Your task to perform on an android device: Open calendar and show me the fourth week of next month Image 0: 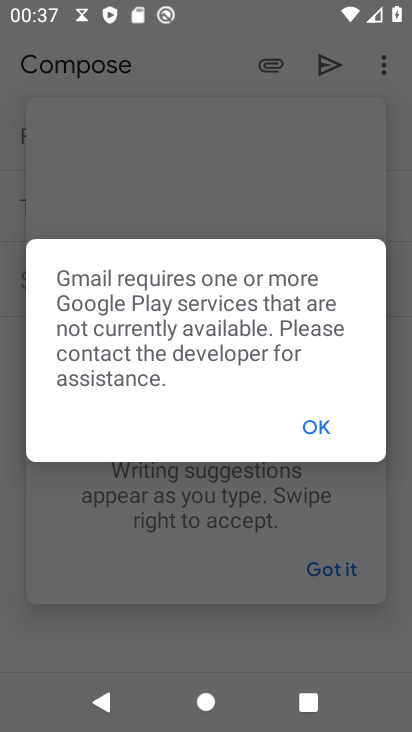
Step 0: press home button
Your task to perform on an android device: Open calendar and show me the fourth week of next month Image 1: 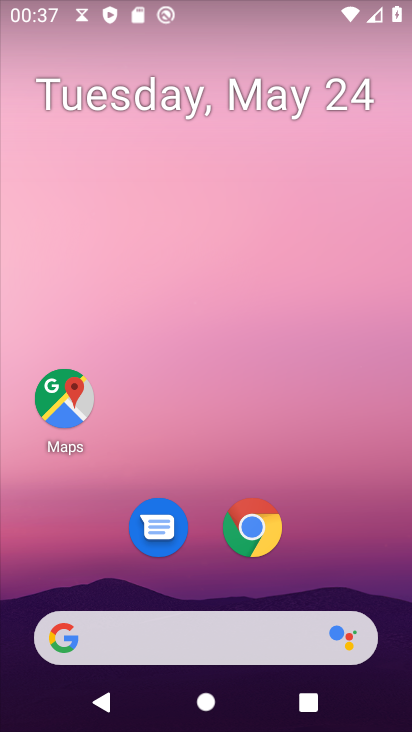
Step 1: drag from (155, 638) to (308, 264)
Your task to perform on an android device: Open calendar and show me the fourth week of next month Image 2: 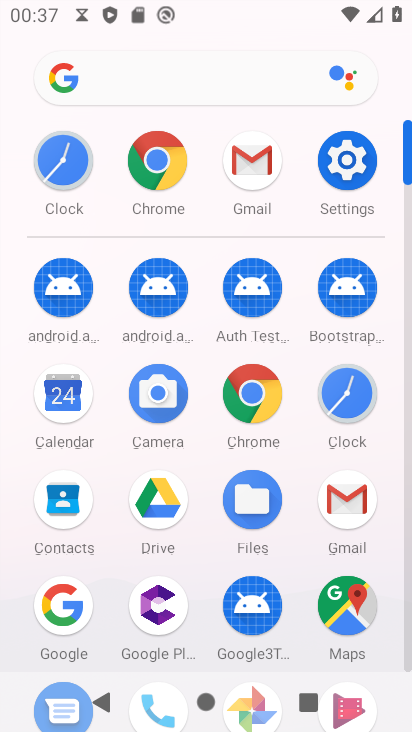
Step 2: click (66, 402)
Your task to perform on an android device: Open calendar and show me the fourth week of next month Image 3: 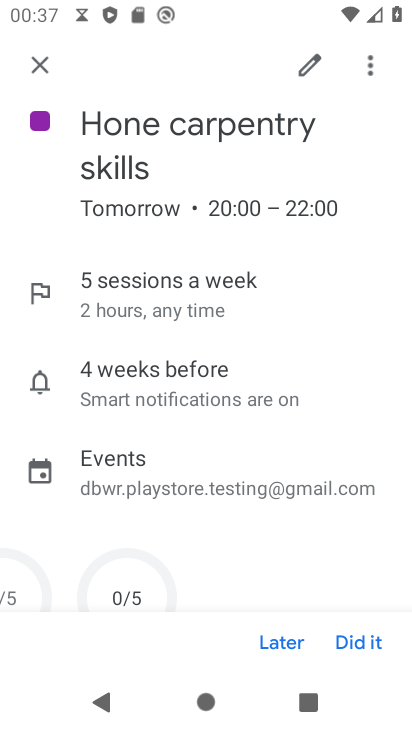
Step 3: click (36, 66)
Your task to perform on an android device: Open calendar and show me the fourth week of next month Image 4: 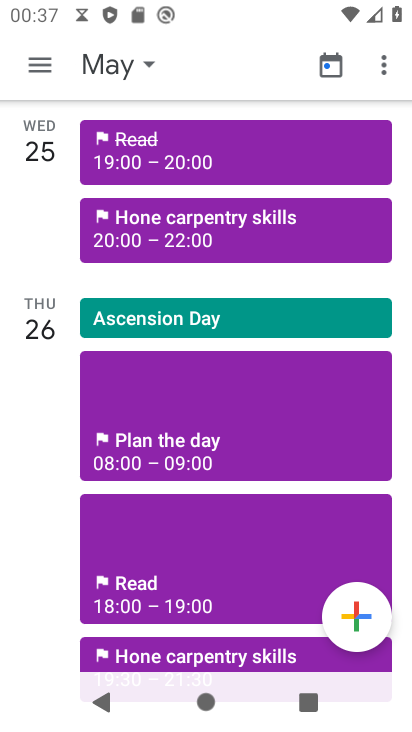
Step 4: click (111, 61)
Your task to perform on an android device: Open calendar and show me the fourth week of next month Image 5: 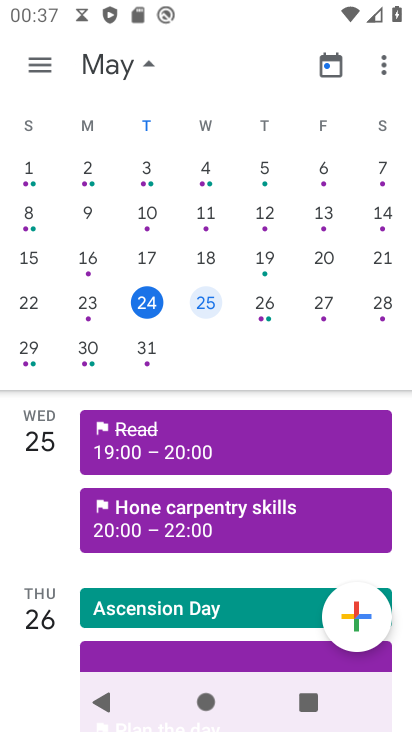
Step 5: click (97, 254)
Your task to perform on an android device: Open calendar and show me the fourth week of next month Image 6: 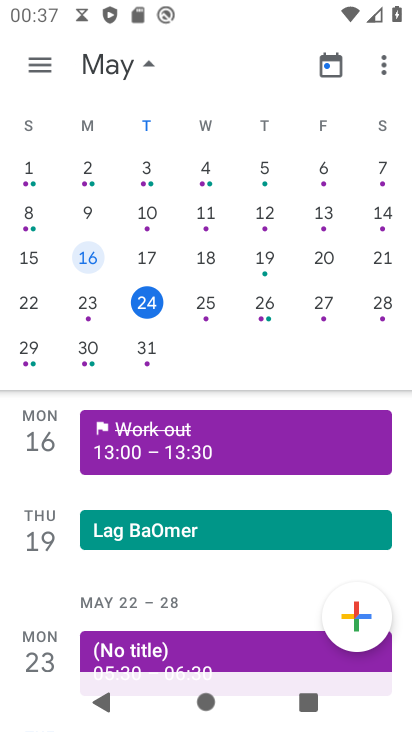
Step 6: drag from (381, 235) to (5, 304)
Your task to perform on an android device: Open calendar and show me the fourth week of next month Image 7: 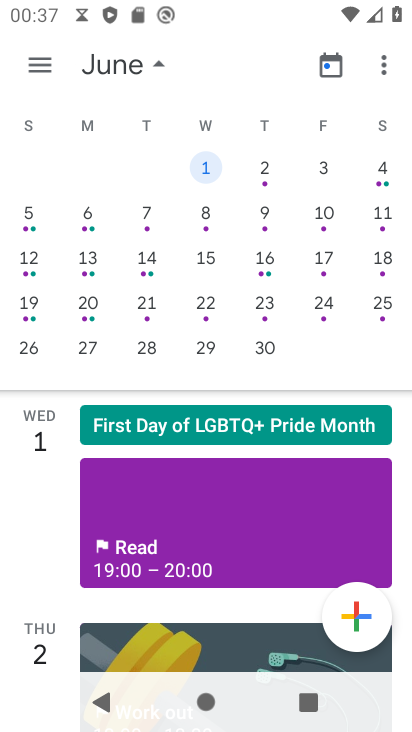
Step 7: click (34, 304)
Your task to perform on an android device: Open calendar and show me the fourth week of next month Image 8: 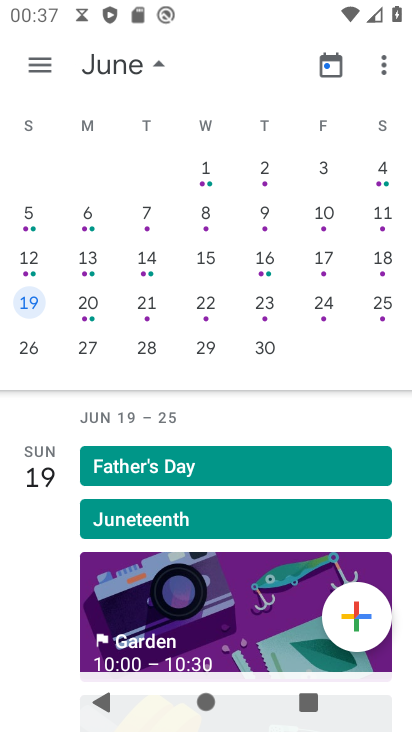
Step 8: click (45, 63)
Your task to perform on an android device: Open calendar and show me the fourth week of next month Image 9: 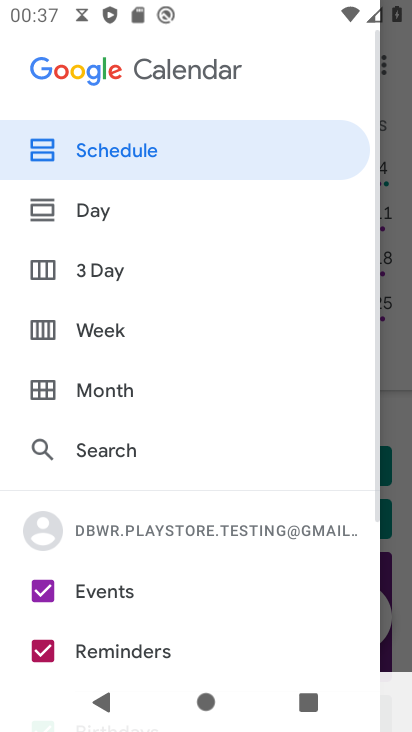
Step 9: click (141, 333)
Your task to perform on an android device: Open calendar and show me the fourth week of next month Image 10: 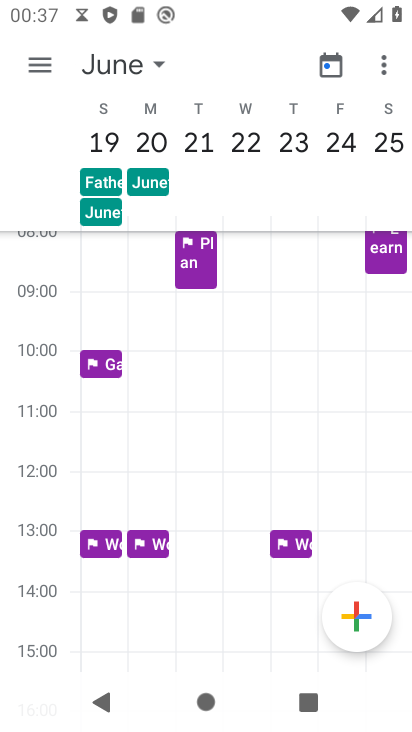
Step 10: task complete